Your task to perform on an android device: search for starred emails in the gmail app Image 0: 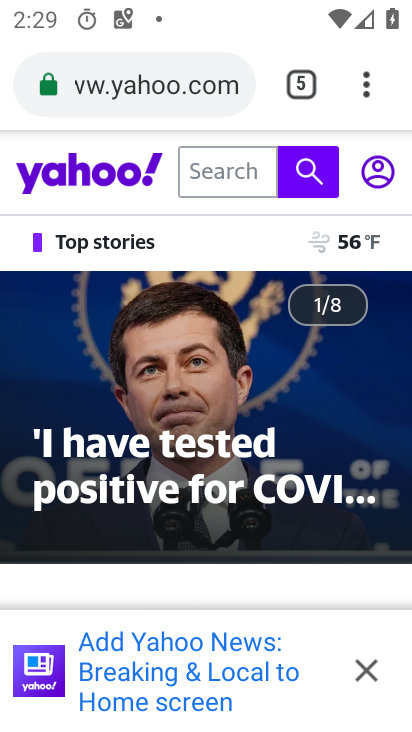
Step 0: press home button
Your task to perform on an android device: search for starred emails in the gmail app Image 1: 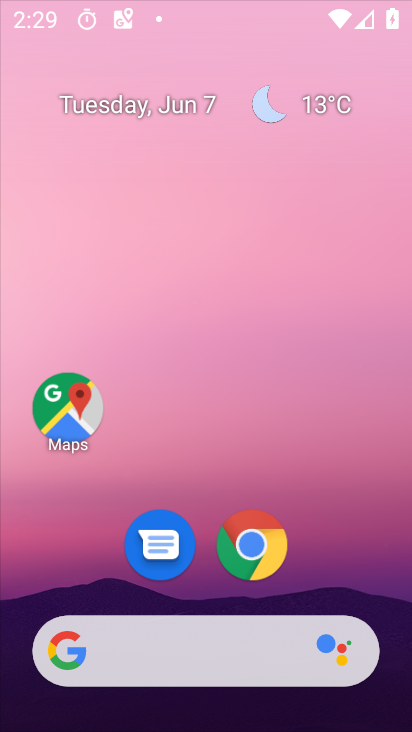
Step 1: drag from (285, 281) to (189, 22)
Your task to perform on an android device: search for starred emails in the gmail app Image 2: 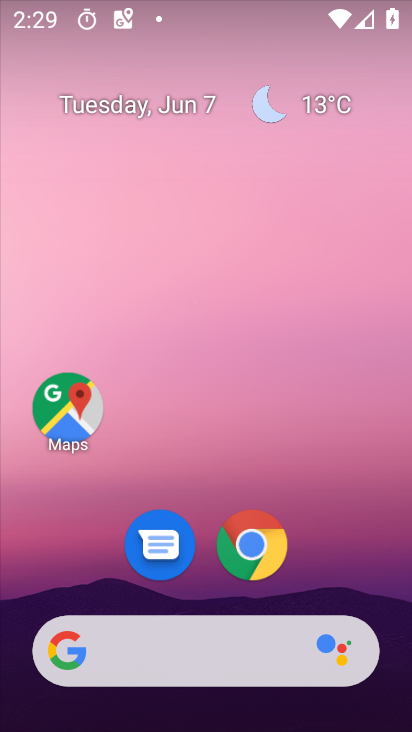
Step 2: drag from (357, 559) to (132, 62)
Your task to perform on an android device: search for starred emails in the gmail app Image 3: 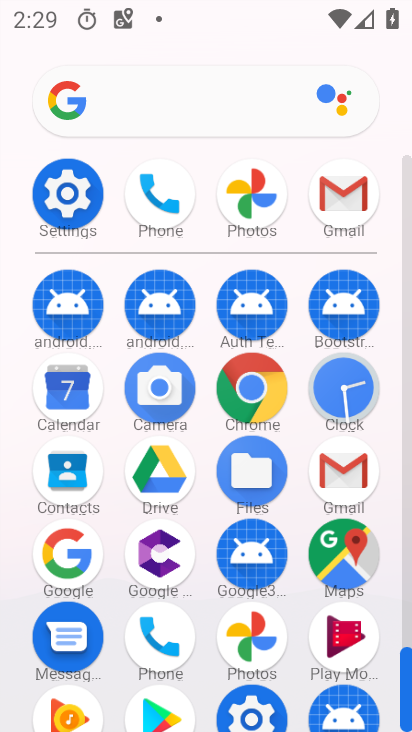
Step 3: click (357, 213)
Your task to perform on an android device: search for starred emails in the gmail app Image 4: 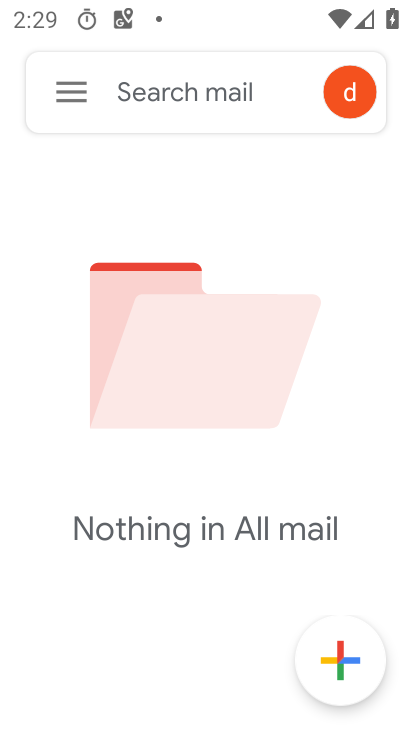
Step 4: click (174, 102)
Your task to perform on an android device: search for starred emails in the gmail app Image 5: 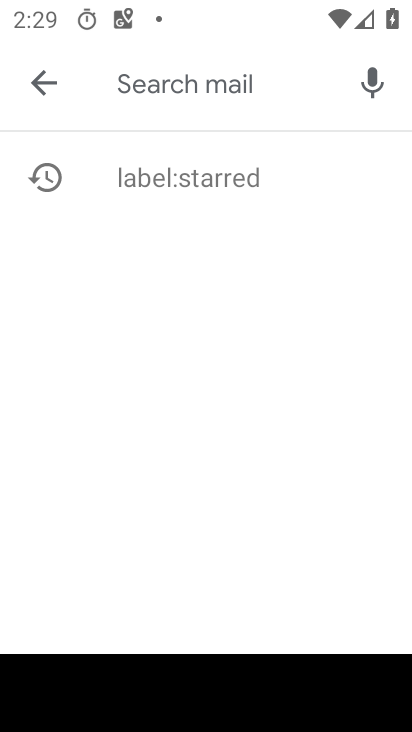
Step 5: click (211, 169)
Your task to perform on an android device: search for starred emails in the gmail app Image 6: 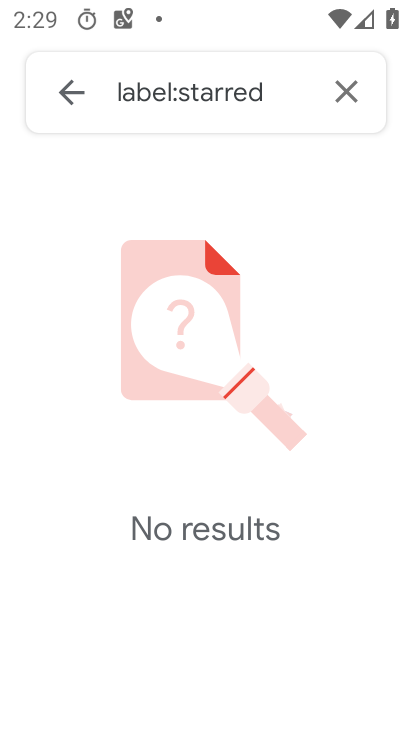
Step 6: task complete